Your task to perform on an android device: What's the weather today? Image 0: 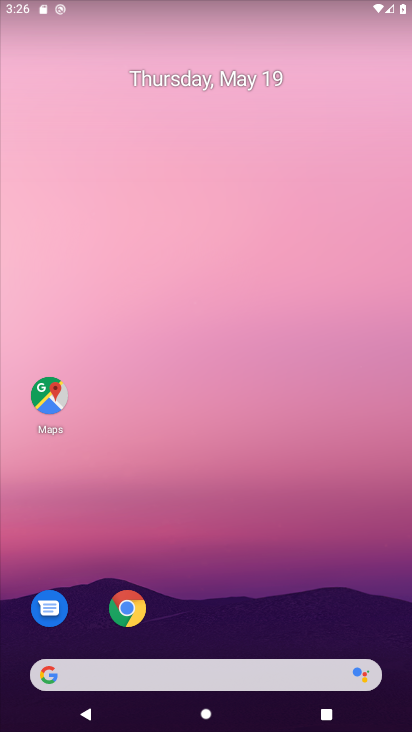
Step 0: drag from (209, 660) to (208, 190)
Your task to perform on an android device: What's the weather today? Image 1: 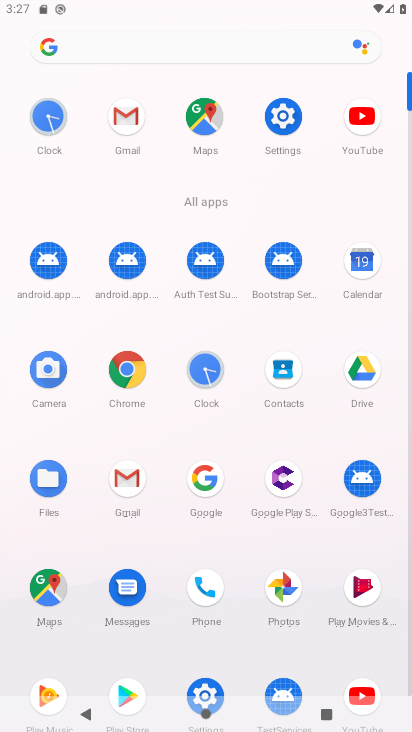
Step 1: click (187, 486)
Your task to perform on an android device: What's the weather today? Image 2: 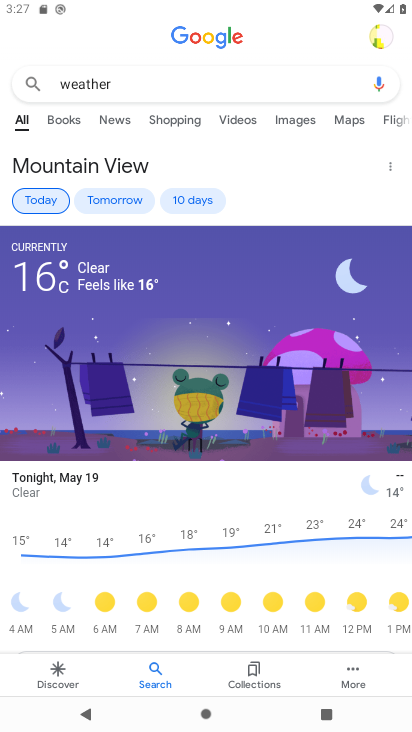
Step 2: task complete